Your task to perform on an android device: open app "Move to iOS" Image 0: 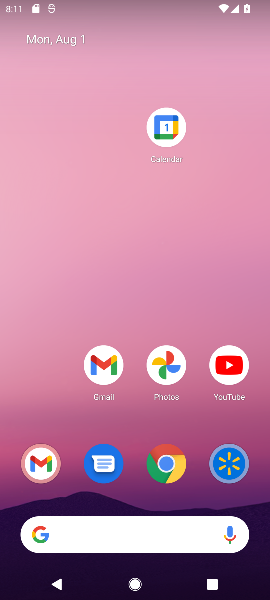
Step 0: drag from (70, 495) to (119, 65)
Your task to perform on an android device: open app "Move to iOS" Image 1: 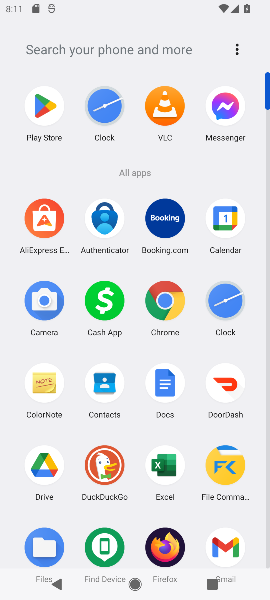
Step 1: click (47, 117)
Your task to perform on an android device: open app "Move to iOS" Image 2: 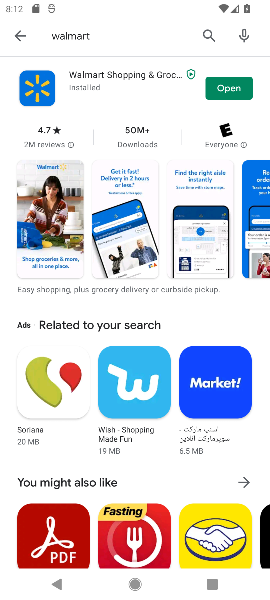
Step 2: click (207, 36)
Your task to perform on an android device: open app "Move to iOS" Image 3: 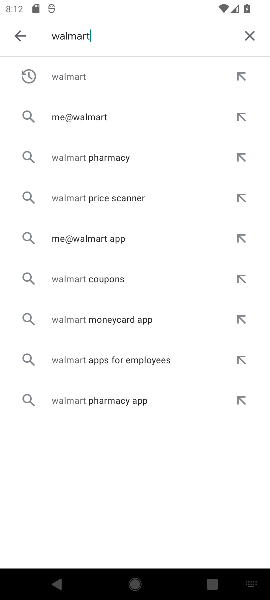
Step 3: click (252, 43)
Your task to perform on an android device: open app "Move to iOS" Image 4: 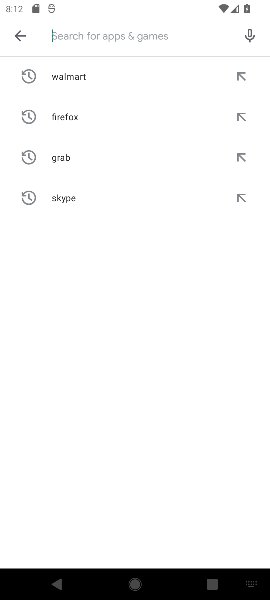
Step 4: type "move iso"
Your task to perform on an android device: open app "Move to iOS" Image 5: 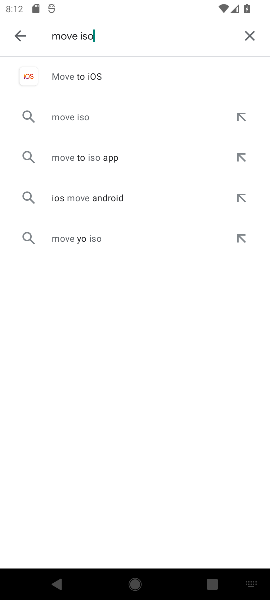
Step 5: click (191, 66)
Your task to perform on an android device: open app "Move to iOS" Image 6: 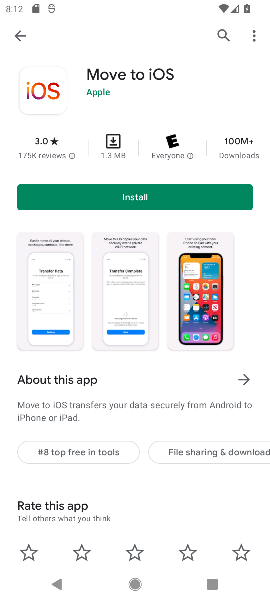
Step 6: click (185, 191)
Your task to perform on an android device: open app "Move to iOS" Image 7: 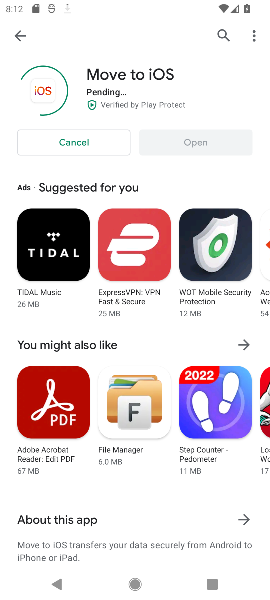
Step 7: task complete